Your task to perform on an android device: turn on bluetooth scan Image 0: 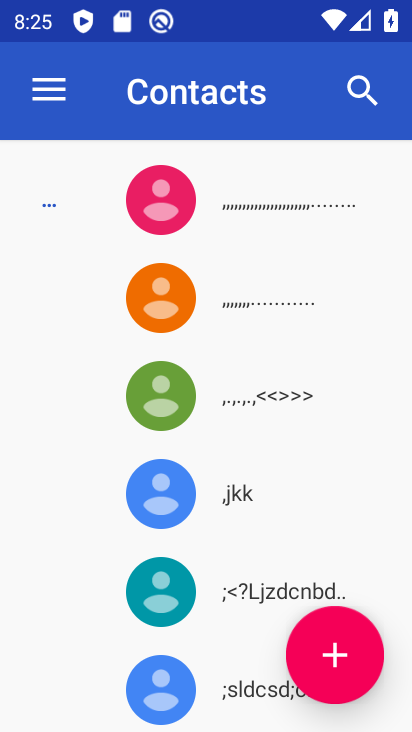
Step 0: press home button
Your task to perform on an android device: turn on bluetooth scan Image 1: 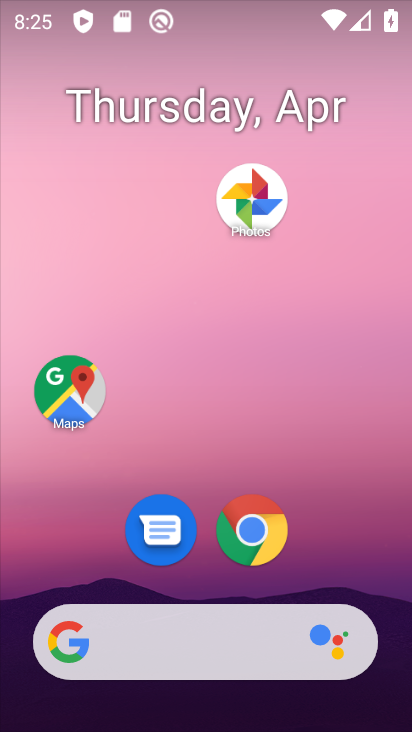
Step 1: drag from (227, 594) to (323, 202)
Your task to perform on an android device: turn on bluetooth scan Image 2: 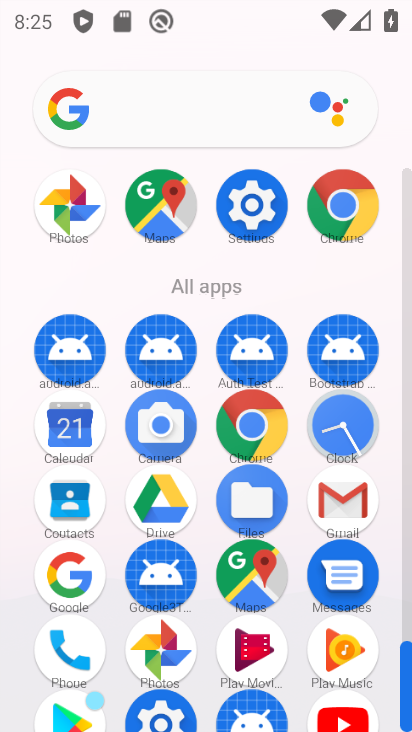
Step 2: click (170, 712)
Your task to perform on an android device: turn on bluetooth scan Image 3: 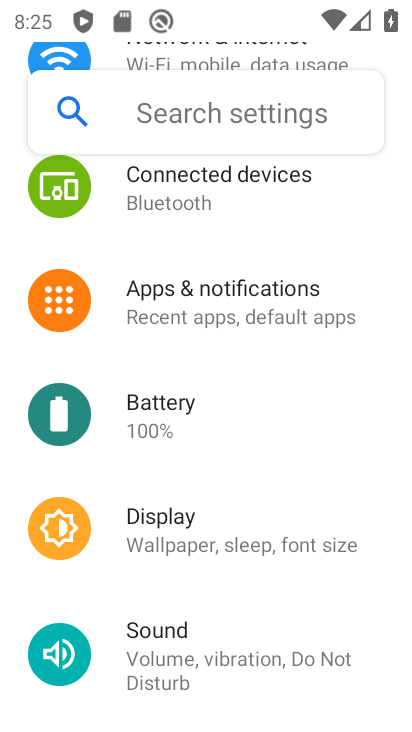
Step 3: drag from (143, 633) to (193, 477)
Your task to perform on an android device: turn on bluetooth scan Image 4: 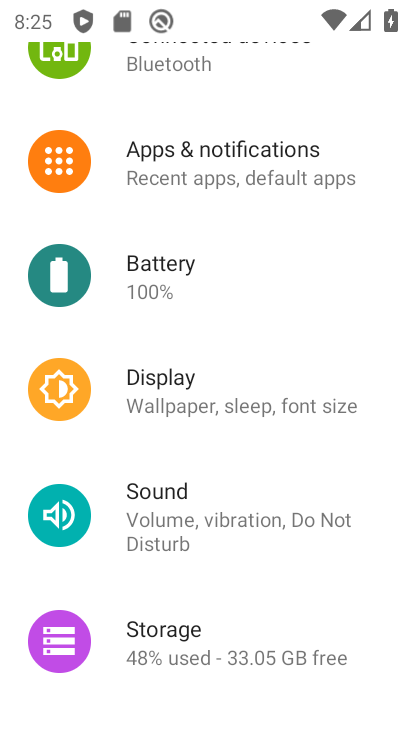
Step 4: drag from (253, 625) to (288, 95)
Your task to perform on an android device: turn on bluetooth scan Image 5: 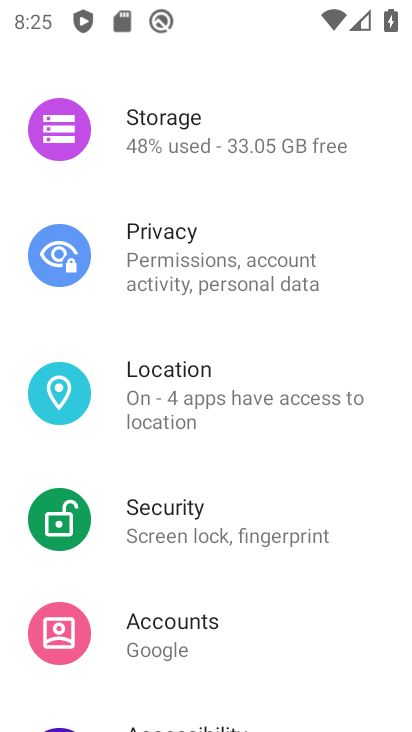
Step 5: drag from (274, 626) to (315, 284)
Your task to perform on an android device: turn on bluetooth scan Image 6: 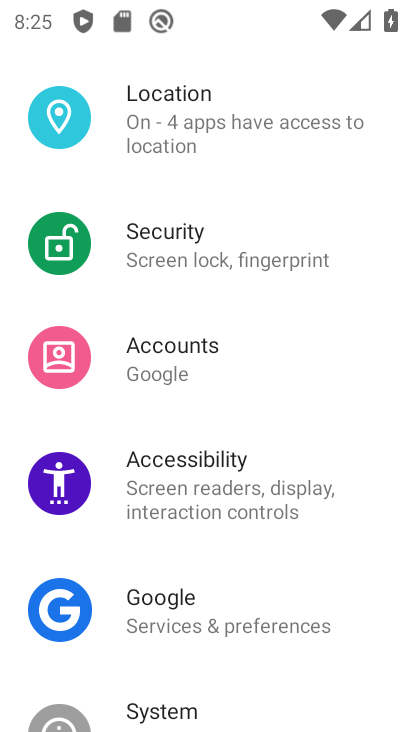
Step 6: click (169, 132)
Your task to perform on an android device: turn on bluetooth scan Image 7: 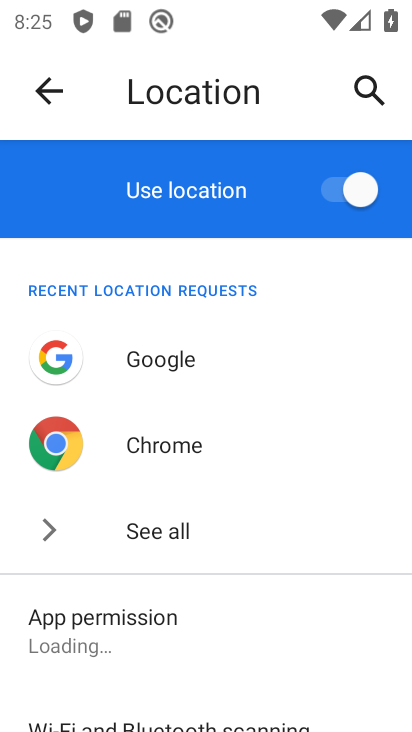
Step 7: drag from (212, 666) to (288, 281)
Your task to perform on an android device: turn on bluetooth scan Image 8: 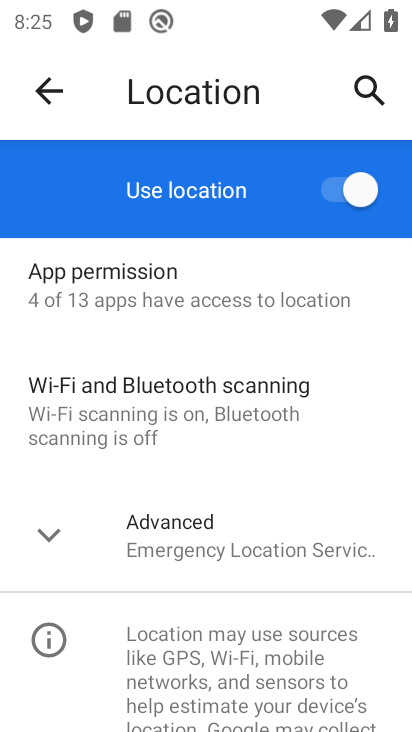
Step 8: click (189, 386)
Your task to perform on an android device: turn on bluetooth scan Image 9: 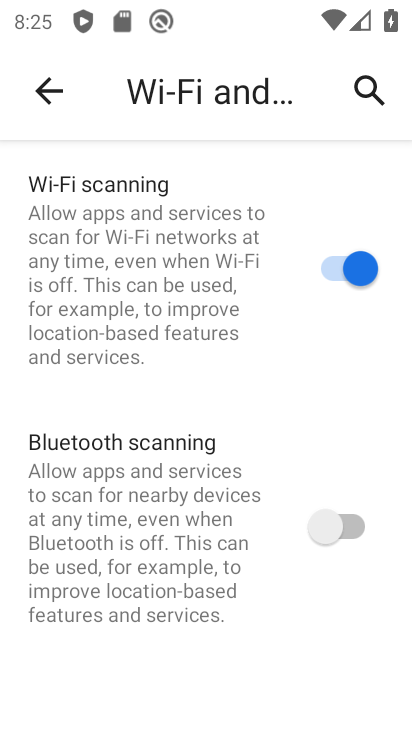
Step 9: click (345, 533)
Your task to perform on an android device: turn on bluetooth scan Image 10: 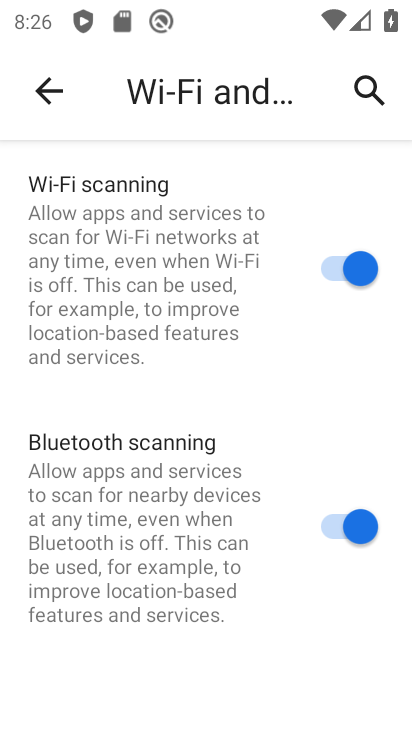
Step 10: task complete